Your task to perform on an android device: turn on showing notifications on the lock screen Image 0: 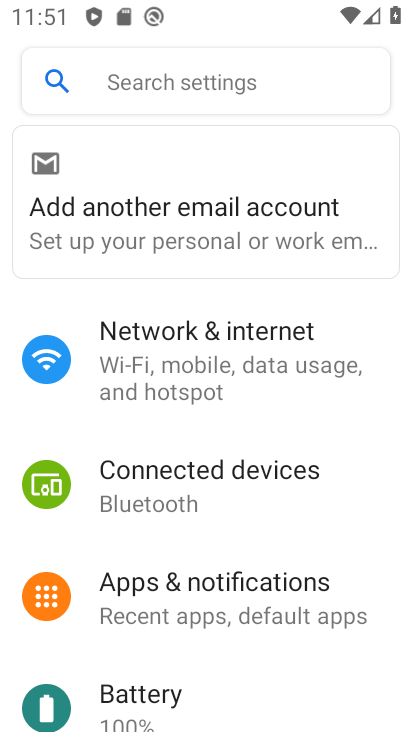
Step 0: press home button
Your task to perform on an android device: turn on showing notifications on the lock screen Image 1: 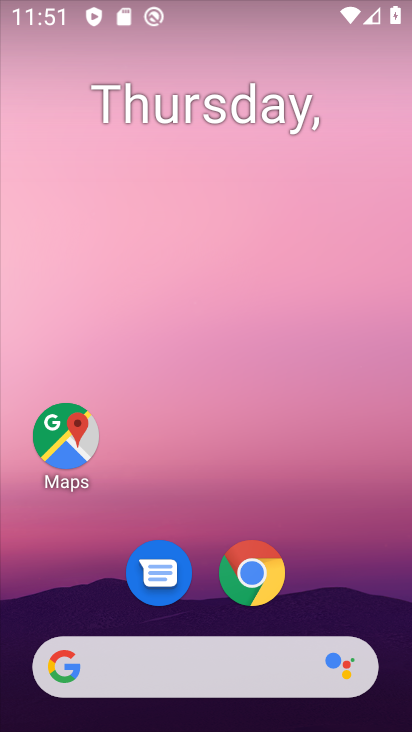
Step 1: drag from (334, 424) to (334, 120)
Your task to perform on an android device: turn on showing notifications on the lock screen Image 2: 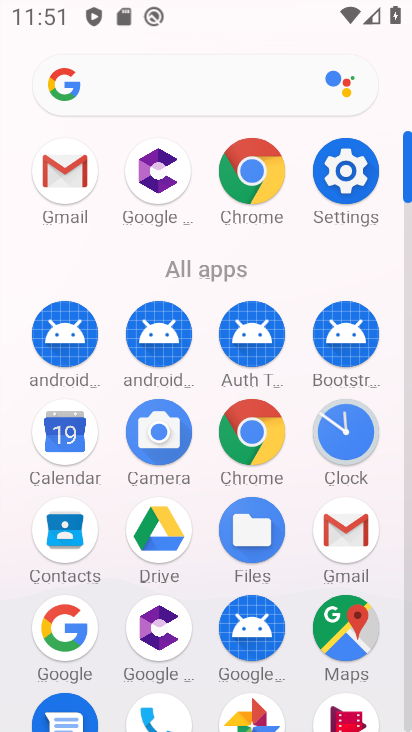
Step 2: click (346, 173)
Your task to perform on an android device: turn on showing notifications on the lock screen Image 3: 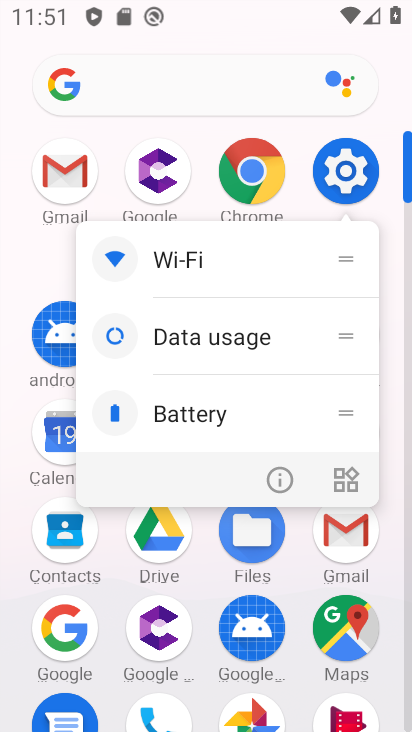
Step 3: click (346, 173)
Your task to perform on an android device: turn on showing notifications on the lock screen Image 4: 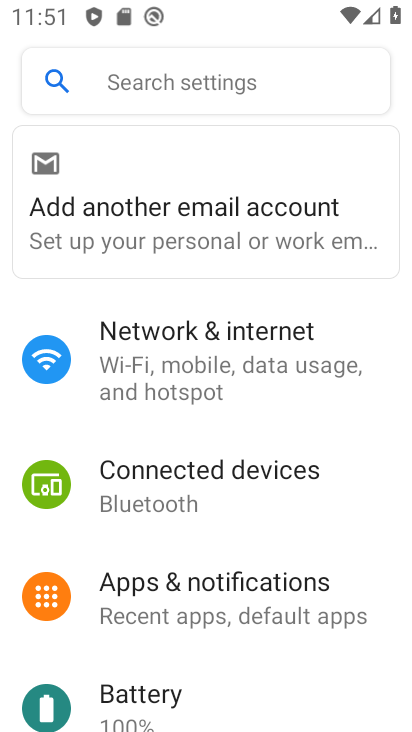
Step 4: click (246, 589)
Your task to perform on an android device: turn on showing notifications on the lock screen Image 5: 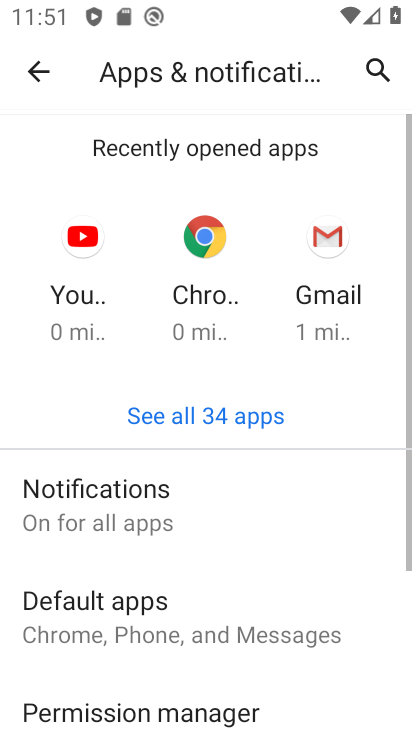
Step 5: click (175, 512)
Your task to perform on an android device: turn on showing notifications on the lock screen Image 6: 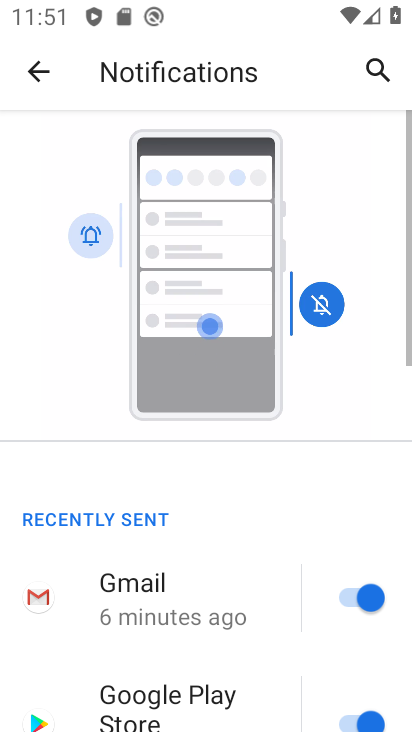
Step 6: drag from (254, 606) to (261, 34)
Your task to perform on an android device: turn on showing notifications on the lock screen Image 7: 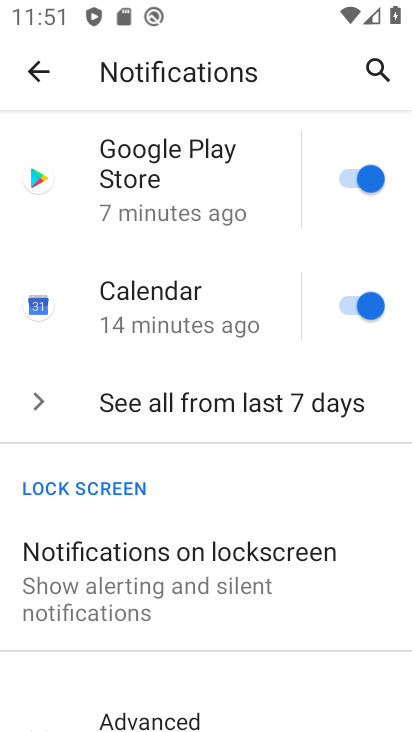
Step 7: click (109, 580)
Your task to perform on an android device: turn on showing notifications on the lock screen Image 8: 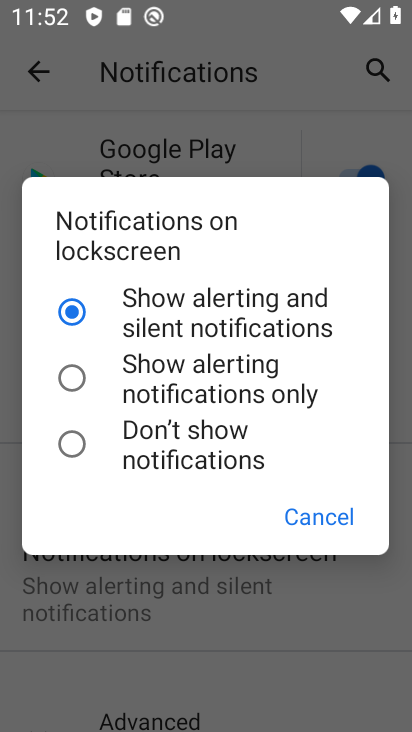
Step 8: task complete